Your task to perform on an android device: Open ESPN.com Image 0: 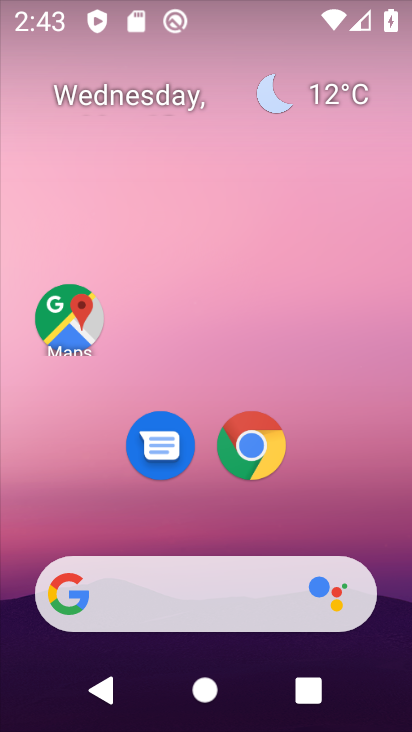
Step 0: click (250, 443)
Your task to perform on an android device: Open ESPN.com Image 1: 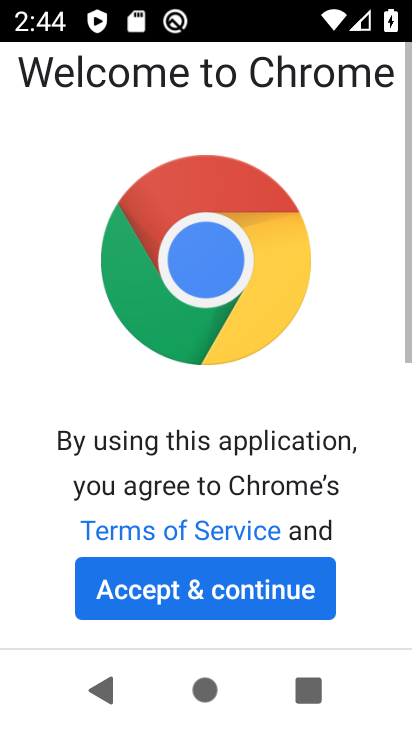
Step 1: click (294, 597)
Your task to perform on an android device: Open ESPN.com Image 2: 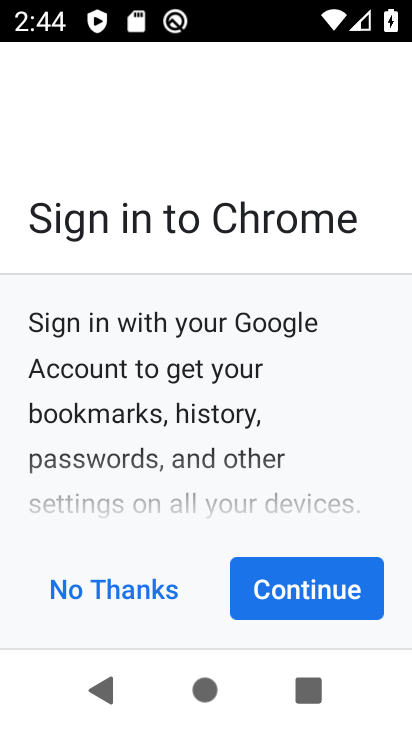
Step 2: click (264, 611)
Your task to perform on an android device: Open ESPN.com Image 3: 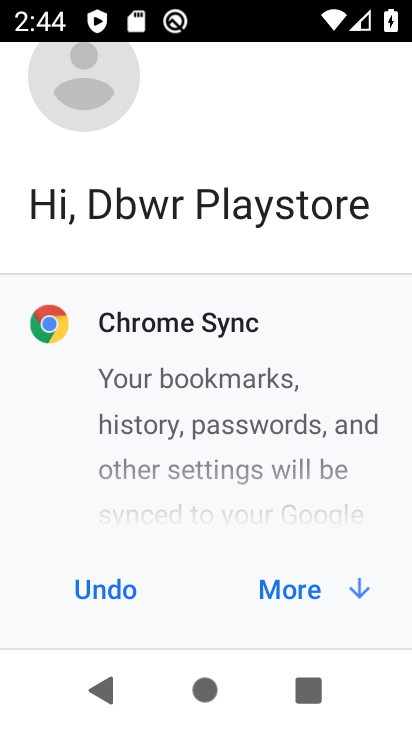
Step 3: click (264, 611)
Your task to perform on an android device: Open ESPN.com Image 4: 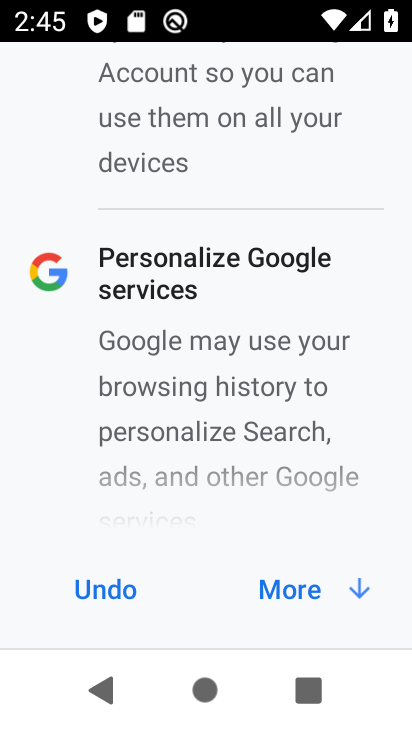
Step 4: click (327, 607)
Your task to perform on an android device: Open ESPN.com Image 5: 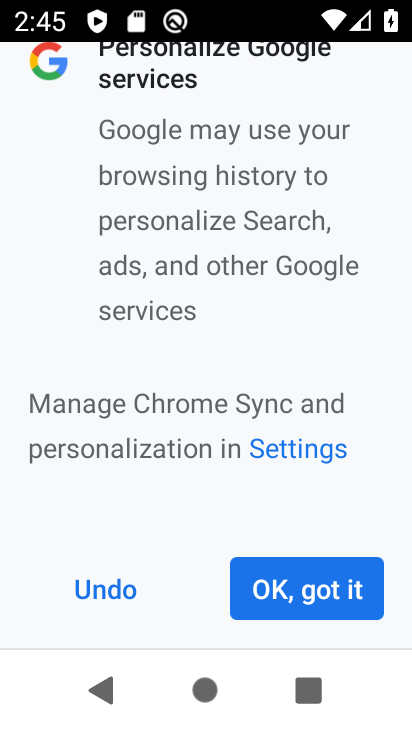
Step 5: click (321, 588)
Your task to perform on an android device: Open ESPN.com Image 6: 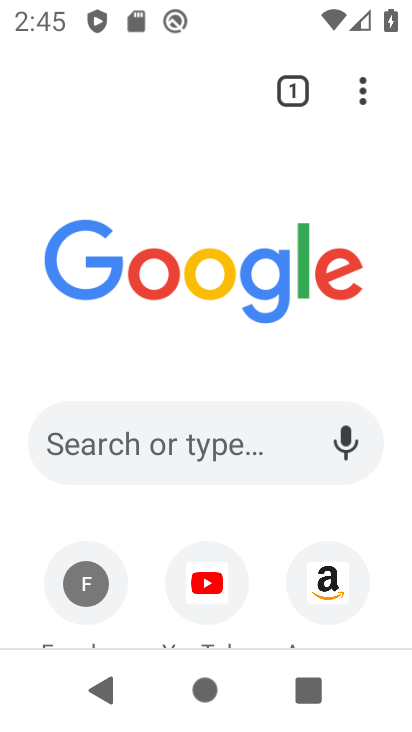
Step 6: drag from (194, 497) to (183, 213)
Your task to perform on an android device: Open ESPN.com Image 7: 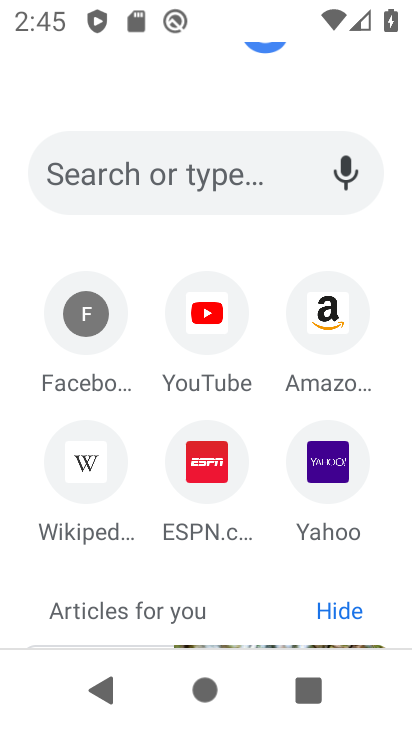
Step 7: click (191, 165)
Your task to perform on an android device: Open ESPN.com Image 8: 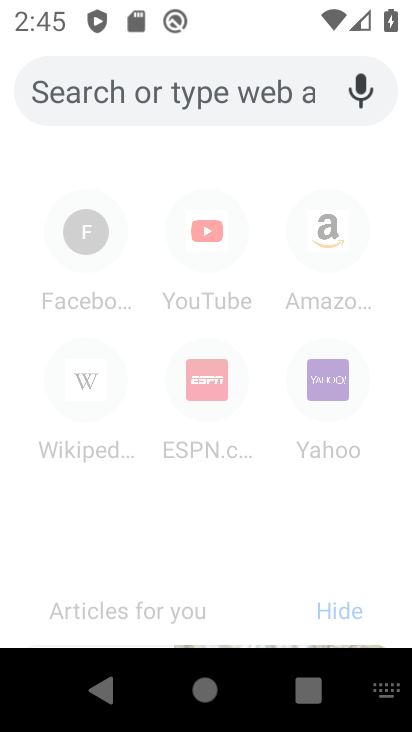
Step 8: type "espn.com"
Your task to perform on an android device: Open ESPN.com Image 9: 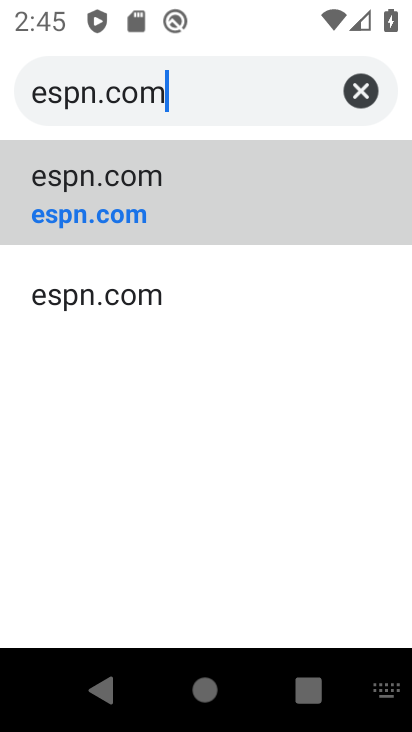
Step 9: click (127, 226)
Your task to perform on an android device: Open ESPN.com Image 10: 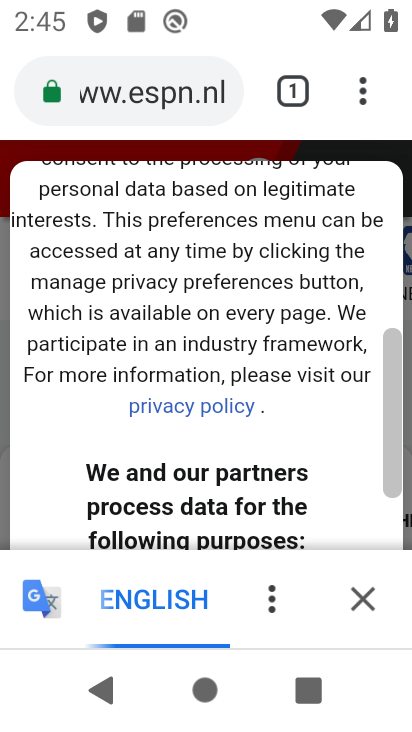
Step 10: task complete